Your task to perform on an android device: turn on showing notifications on the lock screen Image 0: 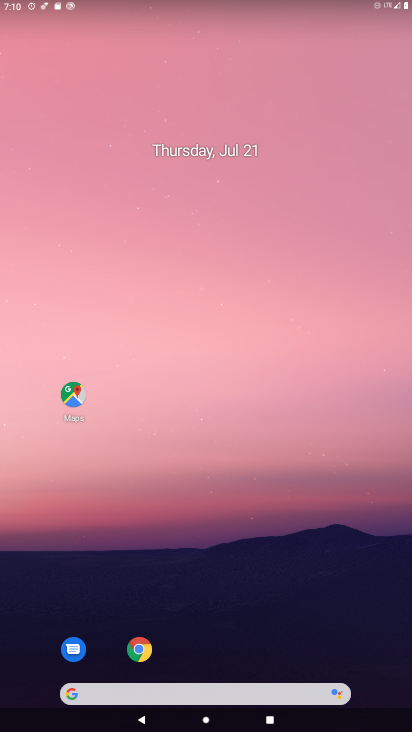
Step 0: drag from (378, 641) to (85, 75)
Your task to perform on an android device: turn on showing notifications on the lock screen Image 1: 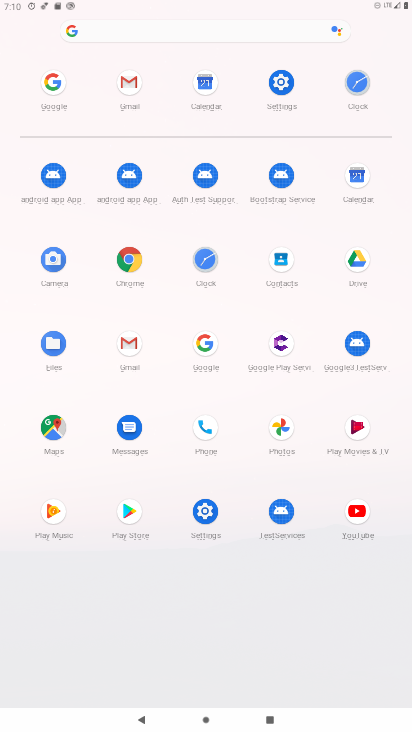
Step 1: click (285, 80)
Your task to perform on an android device: turn on showing notifications on the lock screen Image 2: 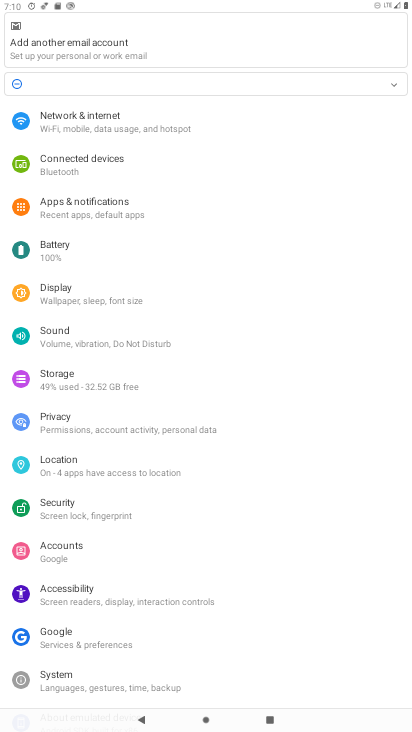
Step 2: click (116, 222)
Your task to perform on an android device: turn on showing notifications on the lock screen Image 3: 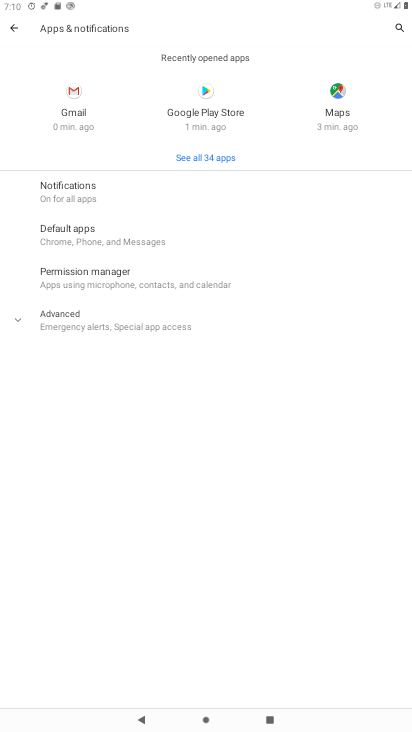
Step 3: click (60, 195)
Your task to perform on an android device: turn on showing notifications on the lock screen Image 4: 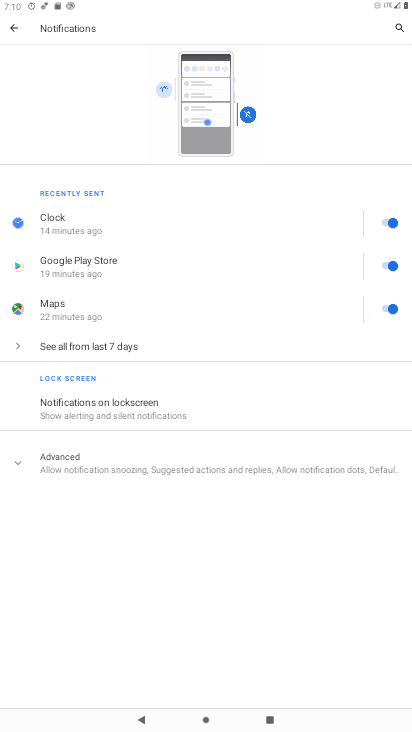
Step 4: click (84, 457)
Your task to perform on an android device: turn on showing notifications on the lock screen Image 5: 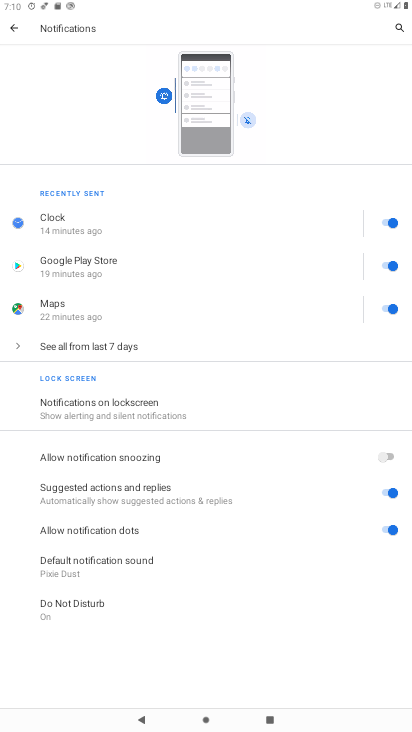
Step 5: click (112, 417)
Your task to perform on an android device: turn on showing notifications on the lock screen Image 6: 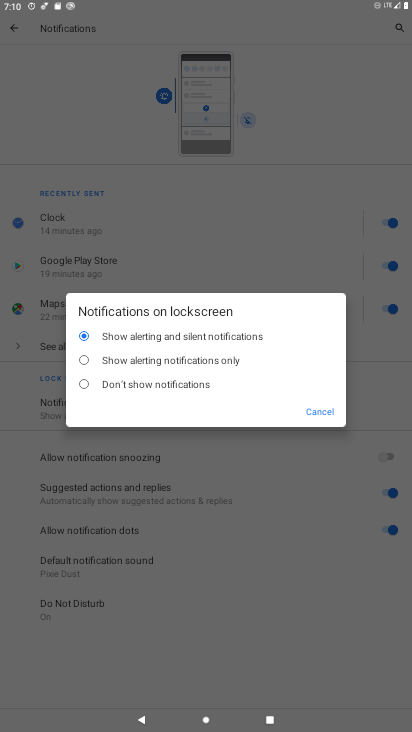
Step 6: click (106, 331)
Your task to perform on an android device: turn on showing notifications on the lock screen Image 7: 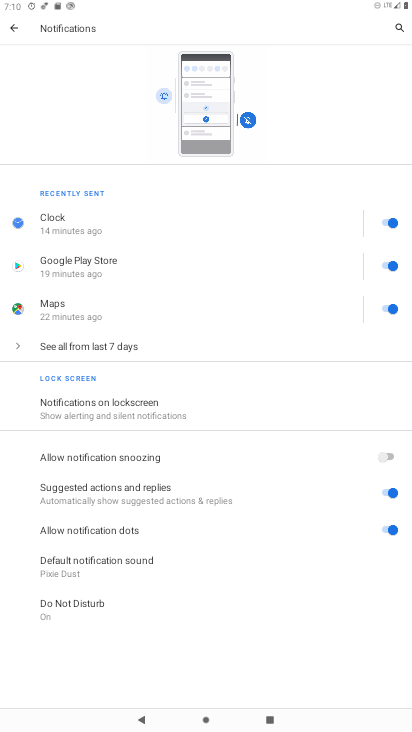
Step 7: task complete